Your task to perform on an android device: turn off priority inbox in the gmail app Image 0: 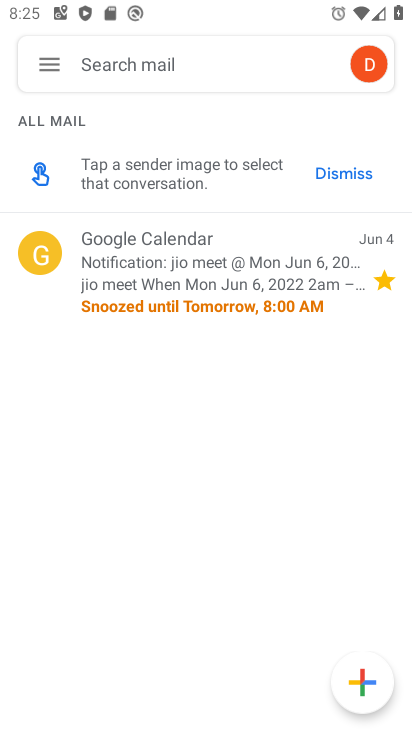
Step 0: press back button
Your task to perform on an android device: turn off priority inbox in the gmail app Image 1: 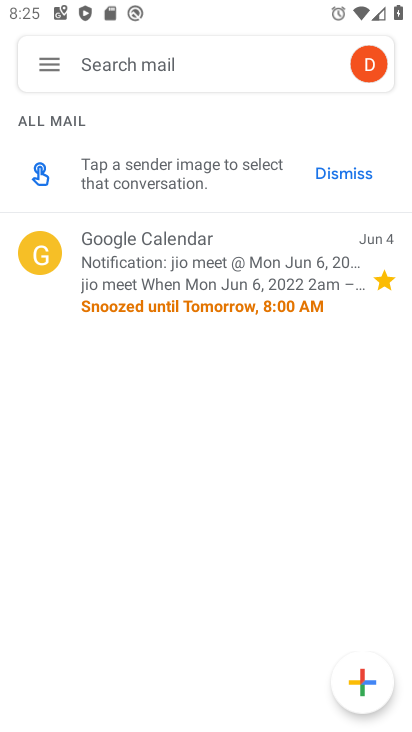
Step 1: press home button
Your task to perform on an android device: turn off priority inbox in the gmail app Image 2: 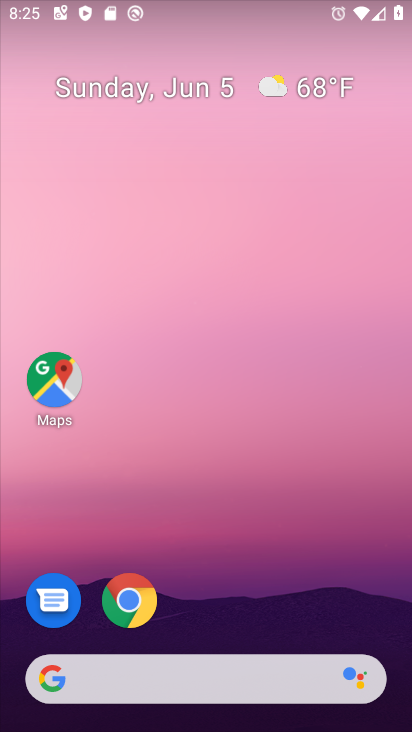
Step 2: drag from (397, 656) to (340, 11)
Your task to perform on an android device: turn off priority inbox in the gmail app Image 3: 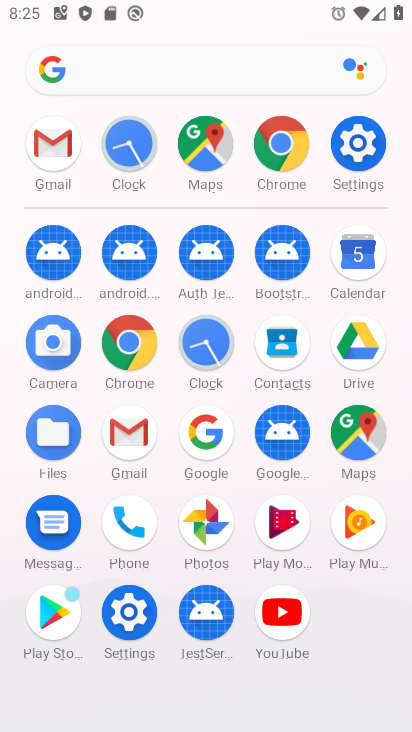
Step 3: click (122, 436)
Your task to perform on an android device: turn off priority inbox in the gmail app Image 4: 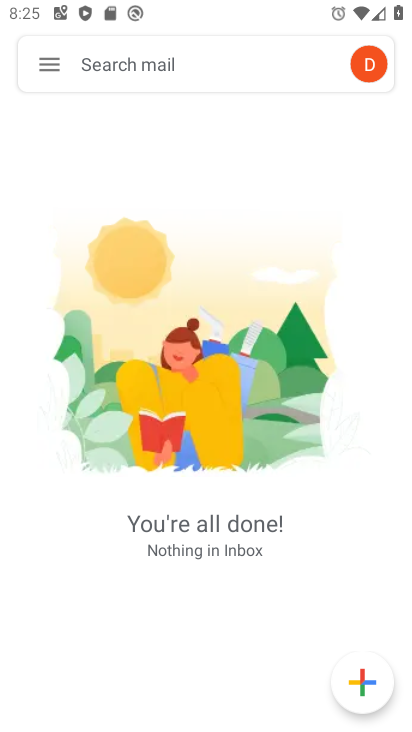
Step 4: click (39, 77)
Your task to perform on an android device: turn off priority inbox in the gmail app Image 5: 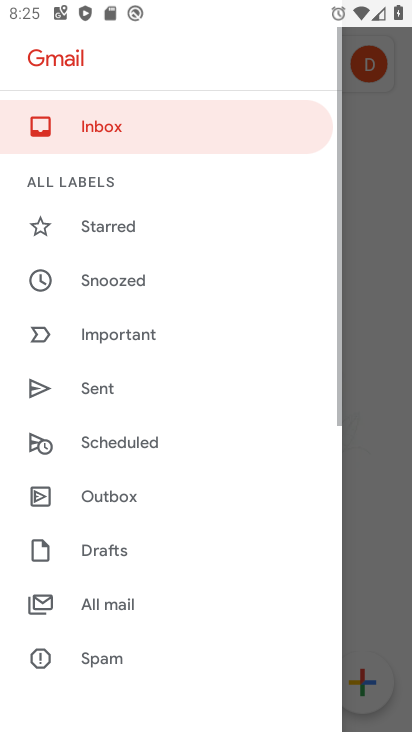
Step 5: drag from (82, 621) to (83, 107)
Your task to perform on an android device: turn off priority inbox in the gmail app Image 6: 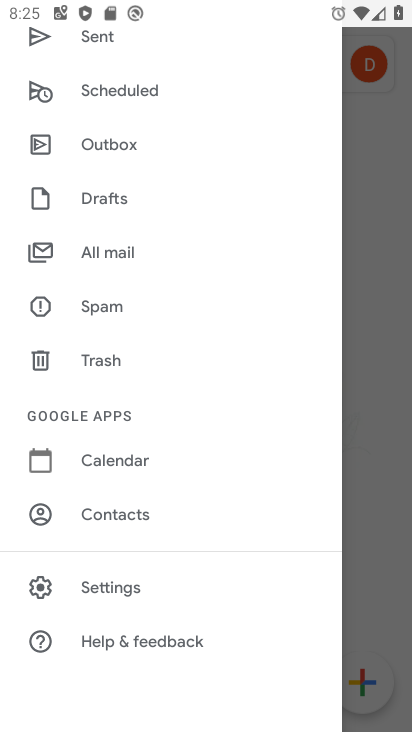
Step 6: click (131, 599)
Your task to perform on an android device: turn off priority inbox in the gmail app Image 7: 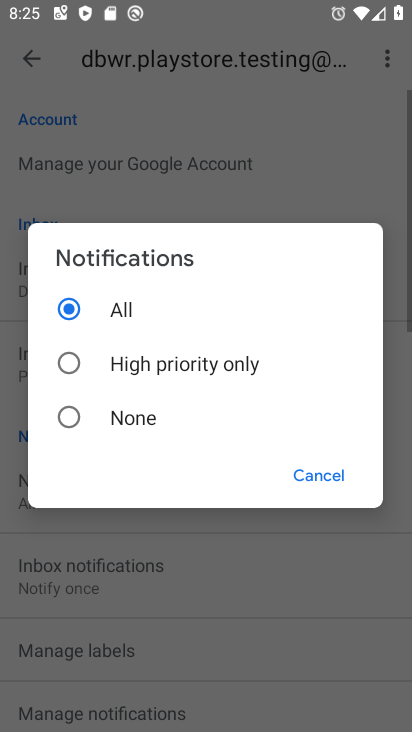
Step 7: click (330, 470)
Your task to perform on an android device: turn off priority inbox in the gmail app Image 8: 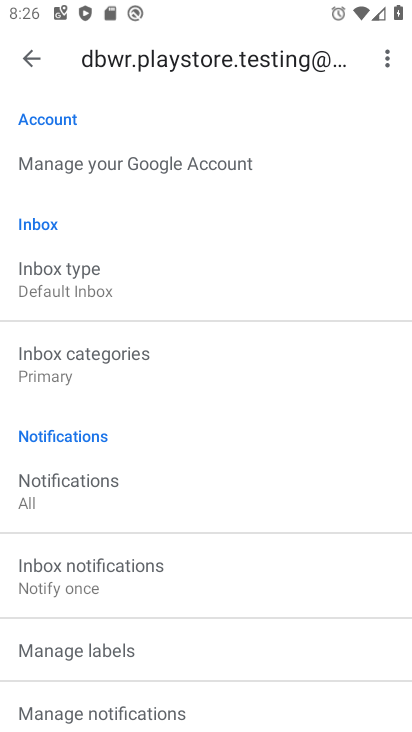
Step 8: click (195, 283)
Your task to perform on an android device: turn off priority inbox in the gmail app Image 9: 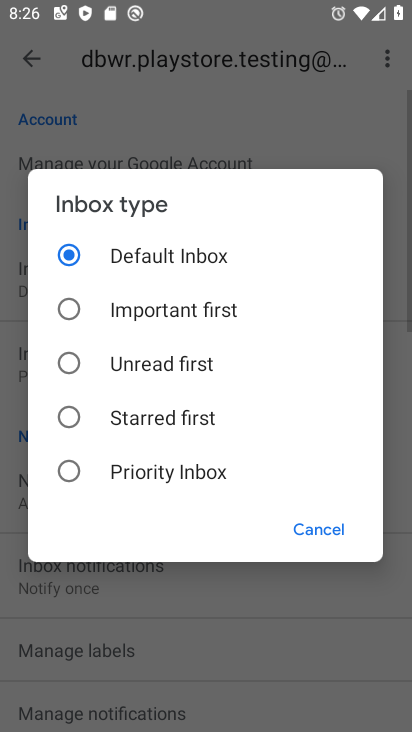
Step 9: click (154, 247)
Your task to perform on an android device: turn off priority inbox in the gmail app Image 10: 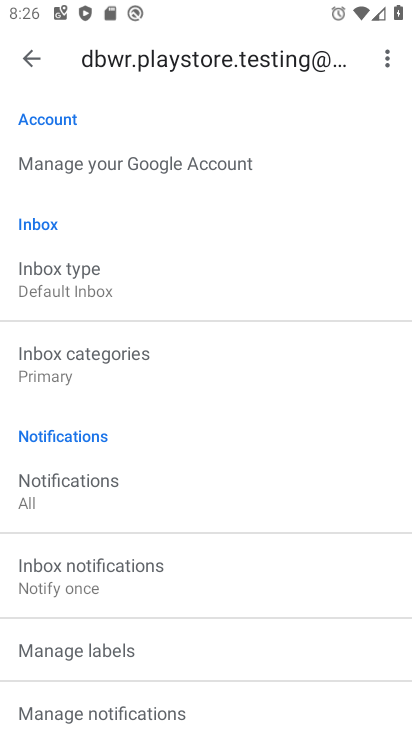
Step 10: task complete